Your task to perform on an android device: add a label to a message in the gmail app Image 0: 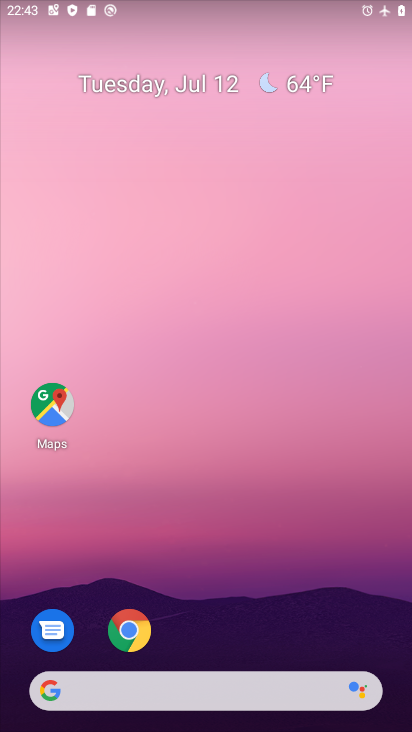
Step 0: drag from (244, 660) to (200, 131)
Your task to perform on an android device: add a label to a message in the gmail app Image 1: 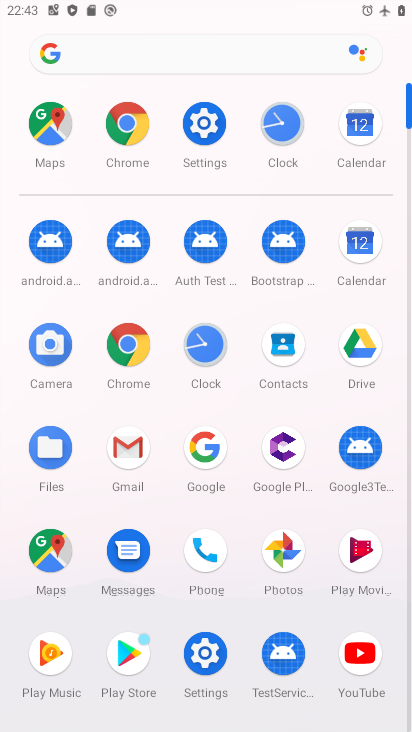
Step 1: click (126, 454)
Your task to perform on an android device: add a label to a message in the gmail app Image 2: 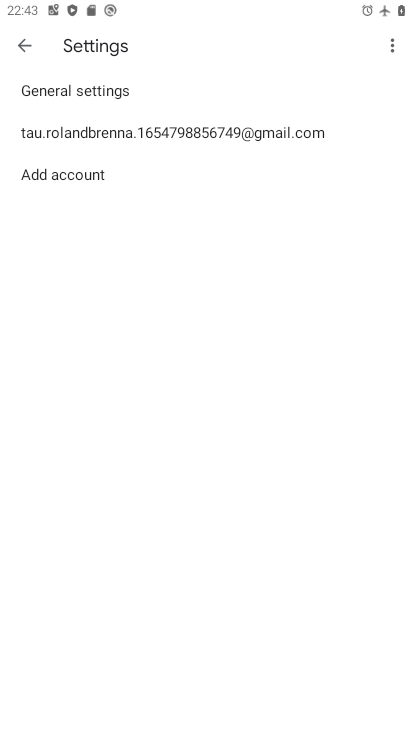
Step 2: click (31, 42)
Your task to perform on an android device: add a label to a message in the gmail app Image 3: 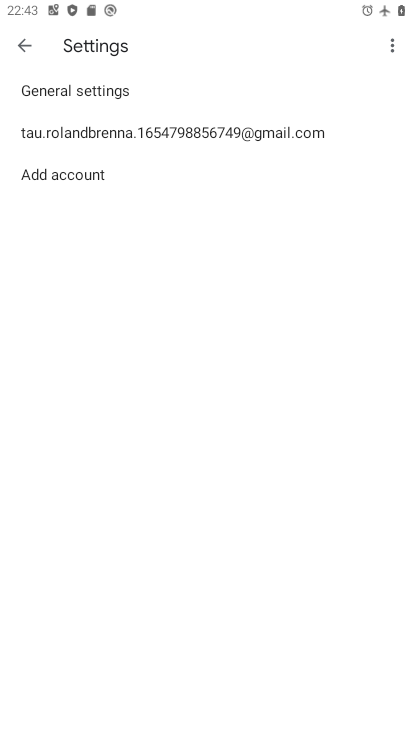
Step 3: click (17, 41)
Your task to perform on an android device: add a label to a message in the gmail app Image 4: 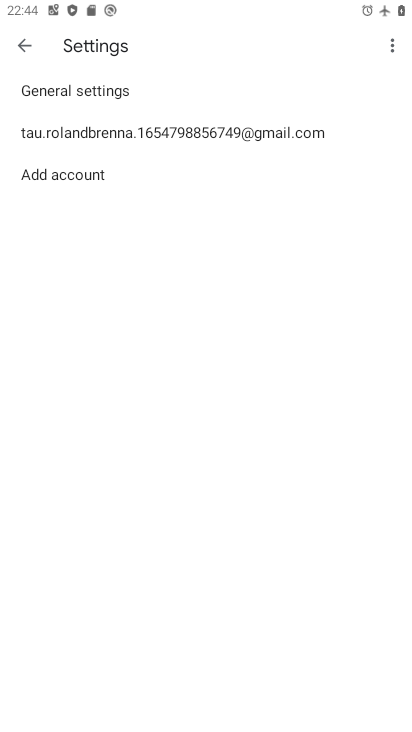
Step 4: click (30, 45)
Your task to perform on an android device: add a label to a message in the gmail app Image 5: 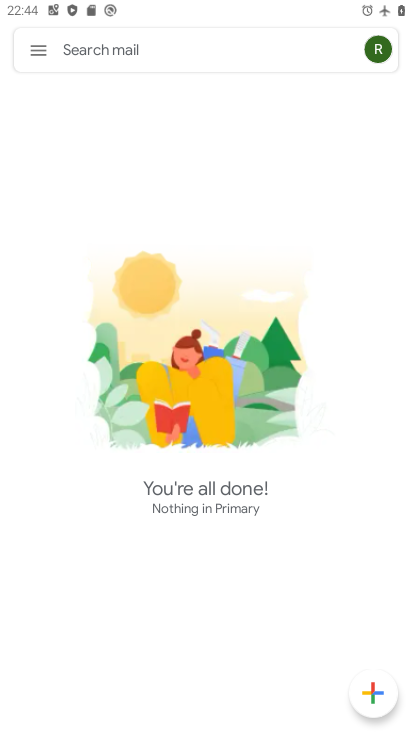
Step 5: task complete